Your task to perform on an android device: Empty the shopping cart on amazon. Add "logitech g910" to the cart on amazon, then select checkout. Image 0: 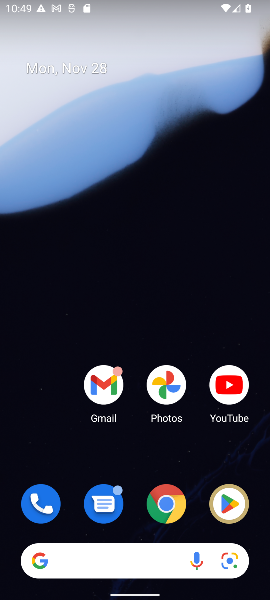
Step 0: click (173, 505)
Your task to perform on an android device: Empty the shopping cart on amazon. Add "logitech g910" to the cart on amazon, then select checkout. Image 1: 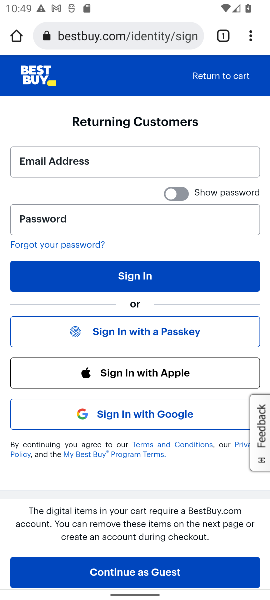
Step 1: click (116, 37)
Your task to perform on an android device: Empty the shopping cart on amazon. Add "logitech g910" to the cart on amazon, then select checkout. Image 2: 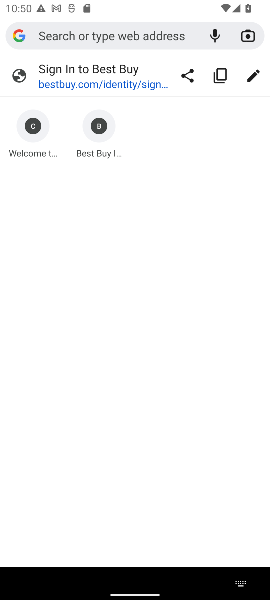
Step 2: type "amazon.com"
Your task to perform on an android device: Empty the shopping cart on amazon. Add "logitech g910" to the cart on amazon, then select checkout. Image 3: 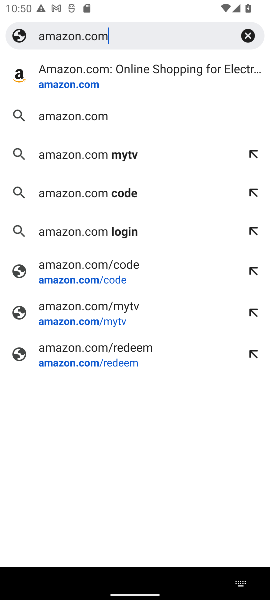
Step 3: click (69, 75)
Your task to perform on an android device: Empty the shopping cart on amazon. Add "logitech g910" to the cart on amazon, then select checkout. Image 4: 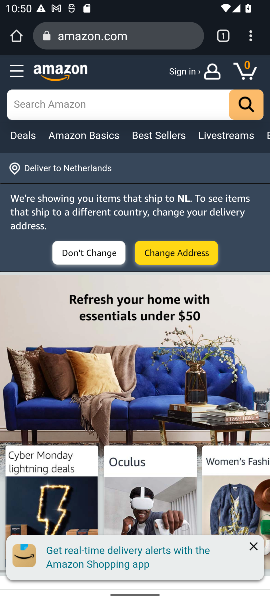
Step 4: click (240, 73)
Your task to perform on an android device: Empty the shopping cart on amazon. Add "logitech g910" to the cart on amazon, then select checkout. Image 5: 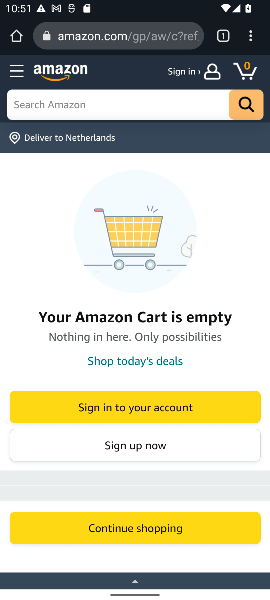
Step 5: click (60, 108)
Your task to perform on an android device: Empty the shopping cart on amazon. Add "logitech g910" to the cart on amazon, then select checkout. Image 6: 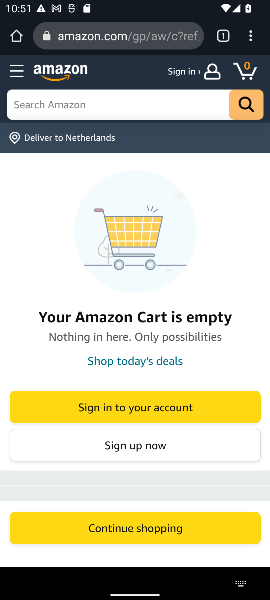
Step 6: type "logitech g910"
Your task to perform on an android device: Empty the shopping cart on amazon. Add "logitech g910" to the cart on amazon, then select checkout. Image 7: 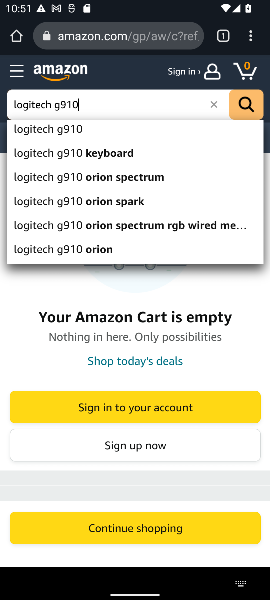
Step 7: click (46, 133)
Your task to perform on an android device: Empty the shopping cart on amazon. Add "logitech g910" to the cart on amazon, then select checkout. Image 8: 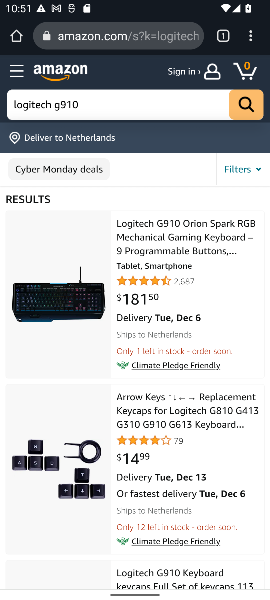
Step 8: click (165, 248)
Your task to perform on an android device: Empty the shopping cart on amazon. Add "logitech g910" to the cart on amazon, then select checkout. Image 9: 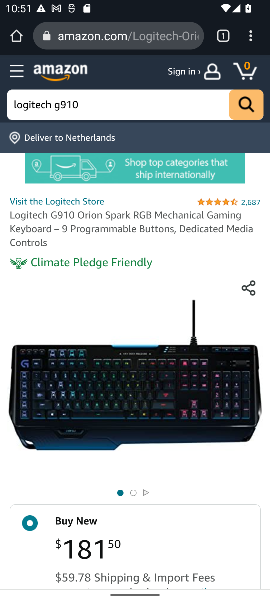
Step 9: drag from (202, 510) to (205, 251)
Your task to perform on an android device: Empty the shopping cart on amazon. Add "logitech g910" to the cart on amazon, then select checkout. Image 10: 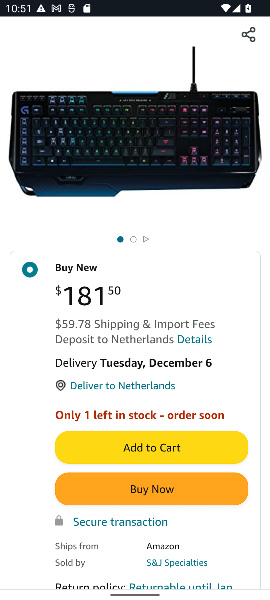
Step 10: click (138, 442)
Your task to perform on an android device: Empty the shopping cart on amazon. Add "logitech g910" to the cart on amazon, then select checkout. Image 11: 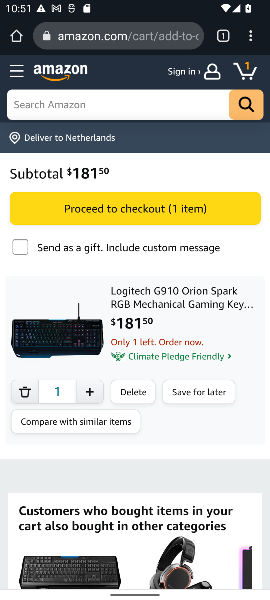
Step 11: click (109, 204)
Your task to perform on an android device: Empty the shopping cart on amazon. Add "logitech g910" to the cart on amazon, then select checkout. Image 12: 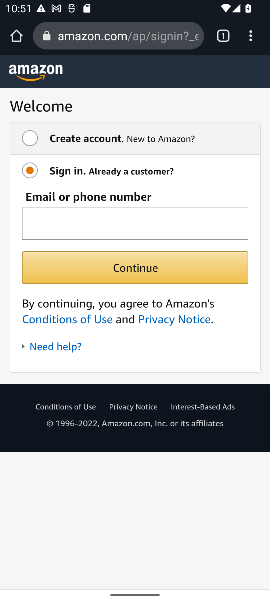
Step 12: task complete